Your task to perform on an android device: Go to Amazon Image 0: 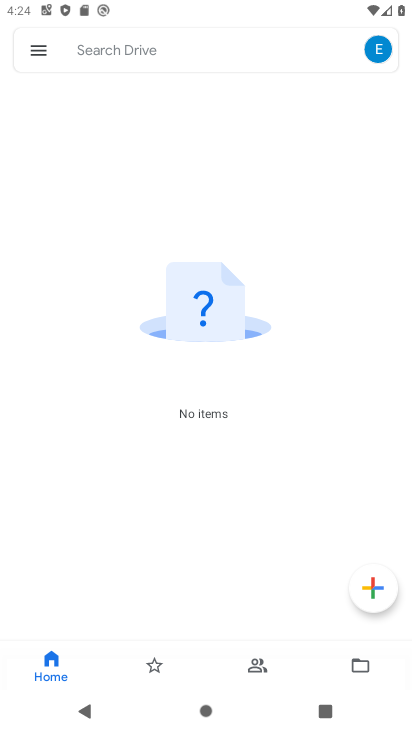
Step 0: press home button
Your task to perform on an android device: Go to Amazon Image 1: 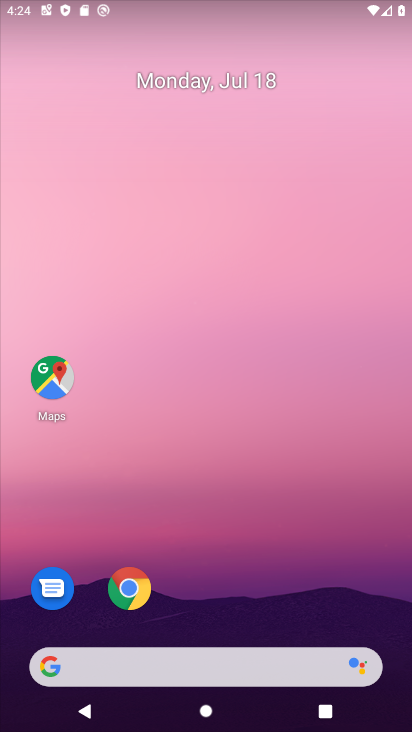
Step 1: drag from (288, 647) to (385, 36)
Your task to perform on an android device: Go to Amazon Image 2: 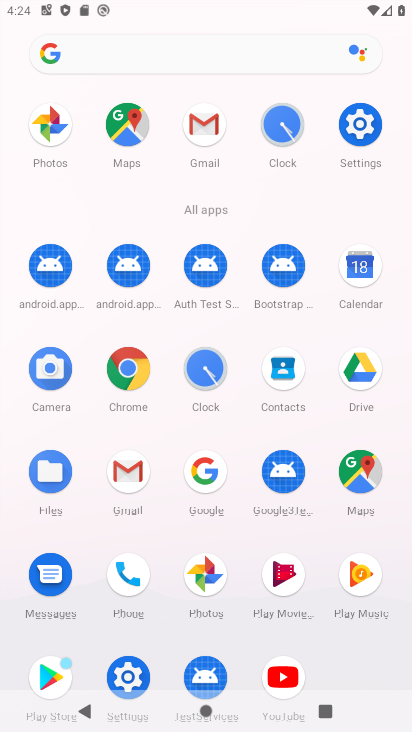
Step 2: click (123, 359)
Your task to perform on an android device: Go to Amazon Image 3: 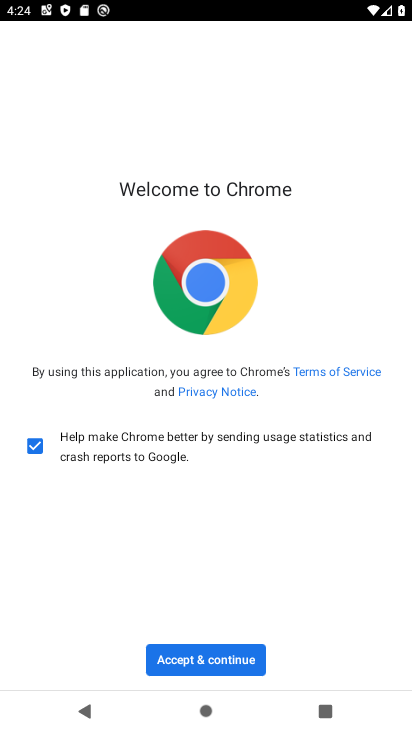
Step 3: click (243, 659)
Your task to perform on an android device: Go to Amazon Image 4: 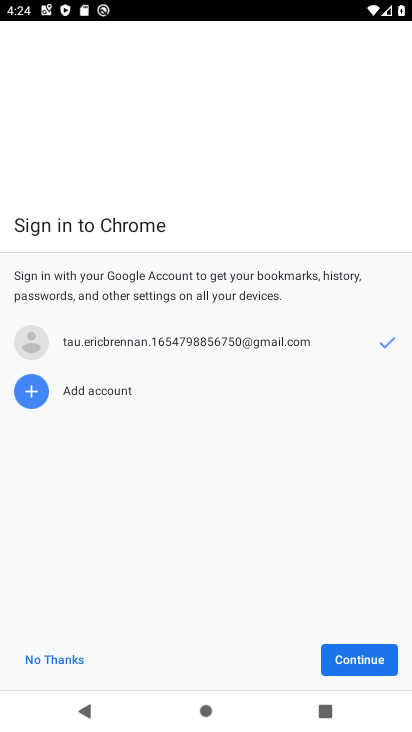
Step 4: click (243, 666)
Your task to perform on an android device: Go to Amazon Image 5: 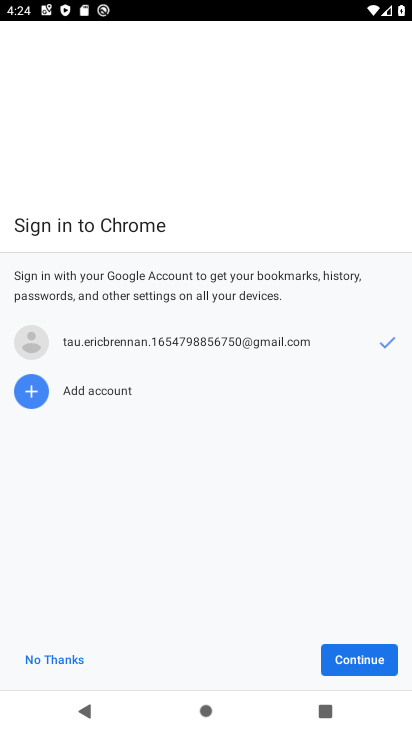
Step 5: click (371, 667)
Your task to perform on an android device: Go to Amazon Image 6: 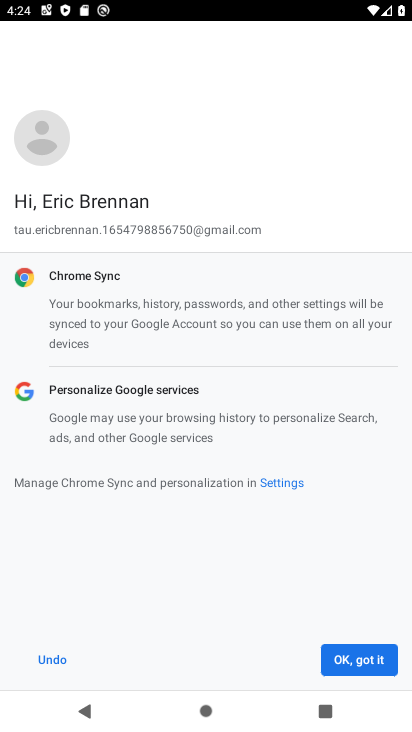
Step 6: click (372, 666)
Your task to perform on an android device: Go to Amazon Image 7: 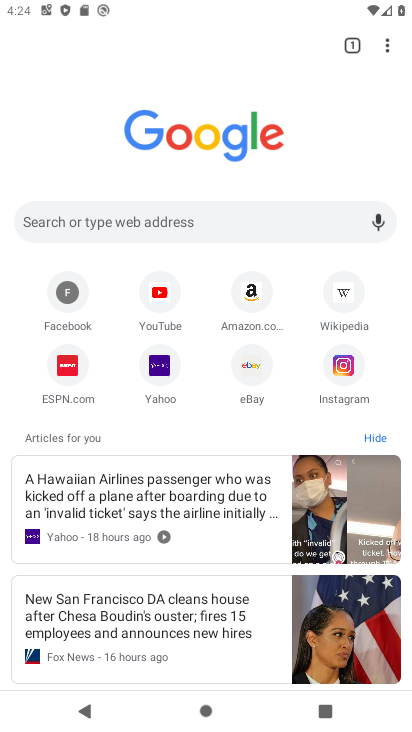
Step 7: click (247, 292)
Your task to perform on an android device: Go to Amazon Image 8: 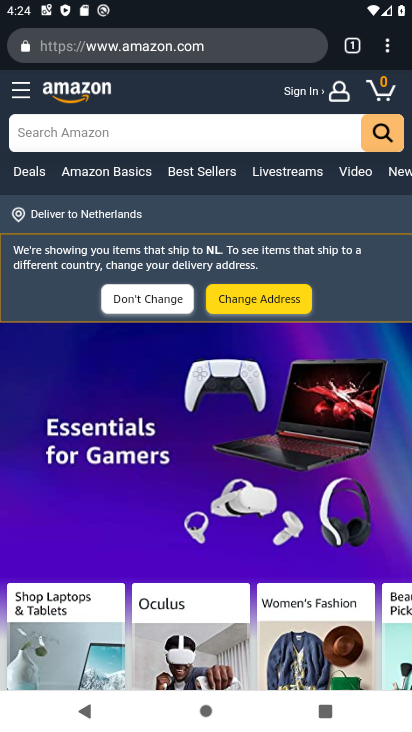
Step 8: task complete